Your task to perform on an android device: Open Chrome and go to settings Image 0: 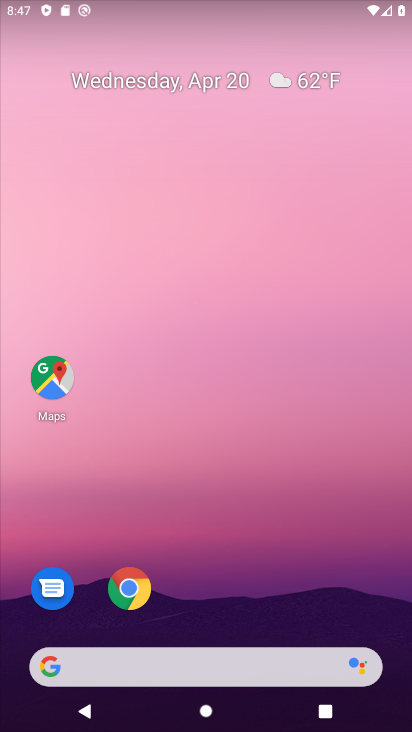
Step 0: drag from (217, 623) to (200, 2)
Your task to perform on an android device: Open Chrome and go to settings Image 1: 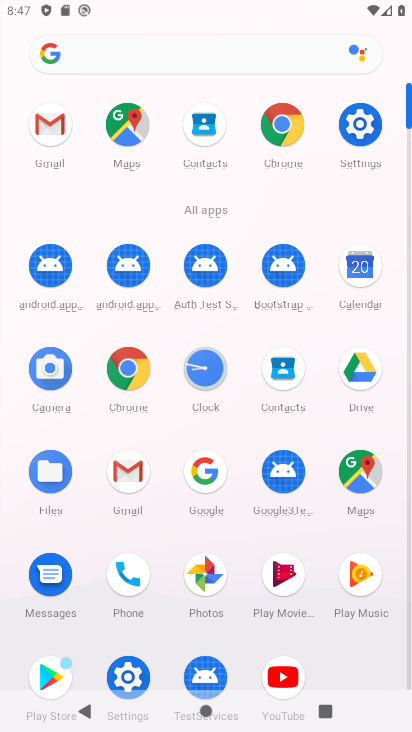
Step 1: click (360, 121)
Your task to perform on an android device: Open Chrome and go to settings Image 2: 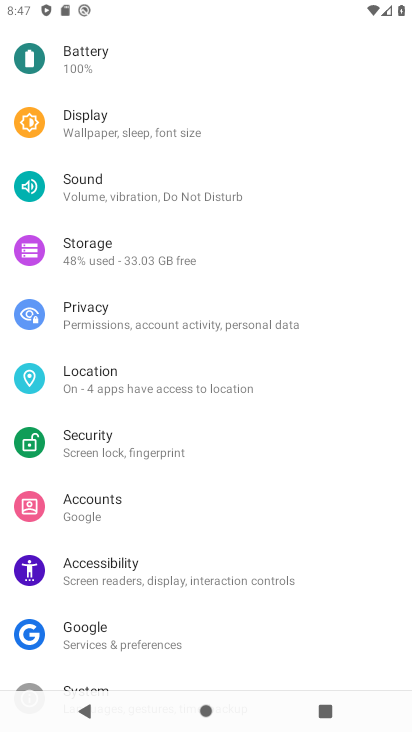
Step 2: press home button
Your task to perform on an android device: Open Chrome and go to settings Image 3: 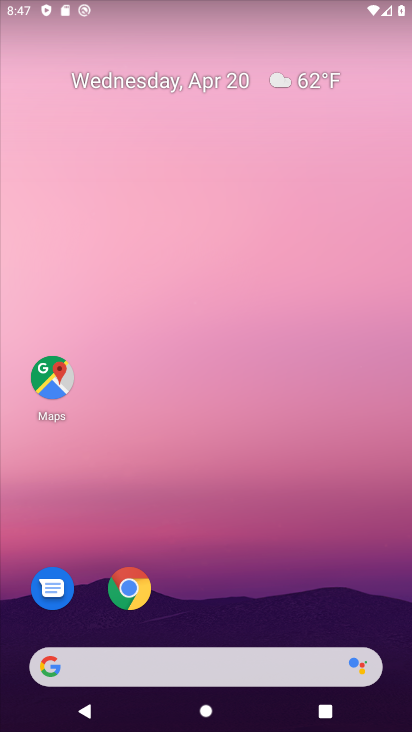
Step 3: drag from (233, 622) to (166, 30)
Your task to perform on an android device: Open Chrome and go to settings Image 4: 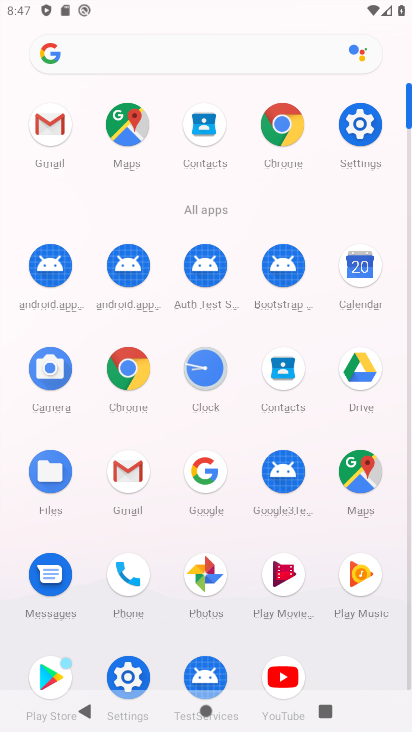
Step 4: click (123, 360)
Your task to perform on an android device: Open Chrome and go to settings Image 5: 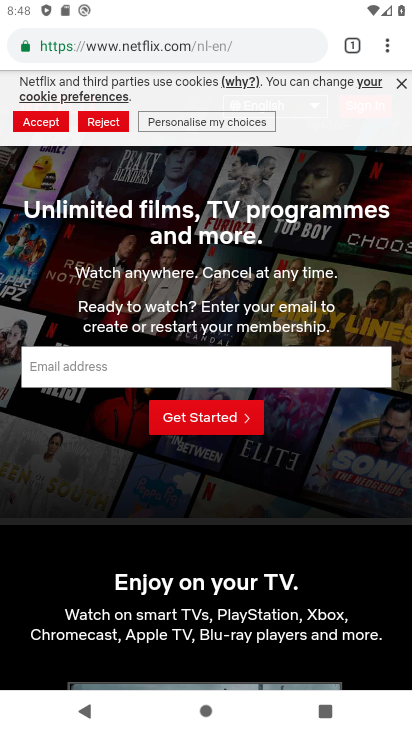
Step 5: click (383, 46)
Your task to perform on an android device: Open Chrome and go to settings Image 6: 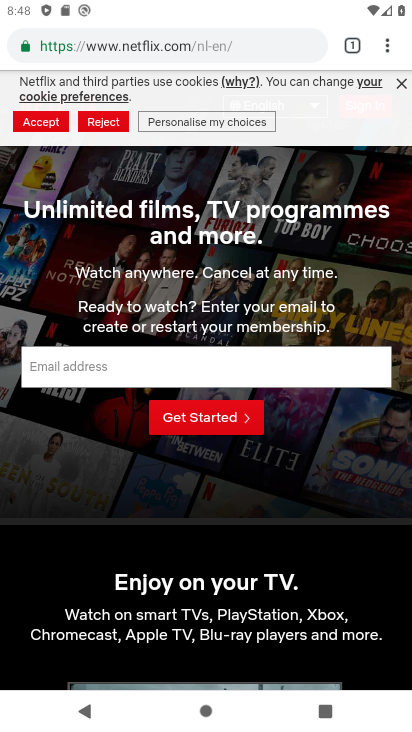
Step 6: click (388, 46)
Your task to perform on an android device: Open Chrome and go to settings Image 7: 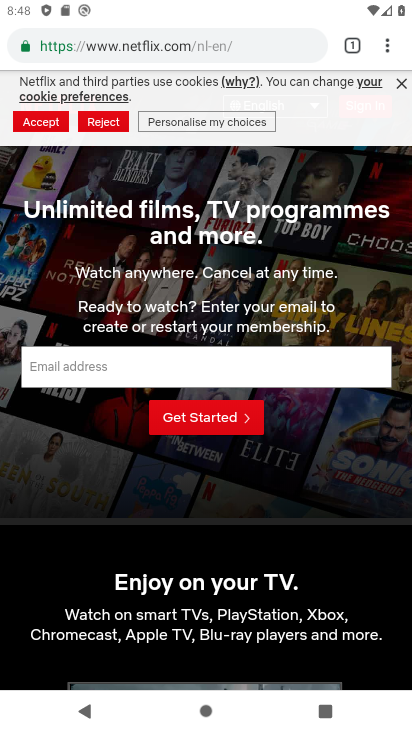
Step 7: click (385, 40)
Your task to perform on an android device: Open Chrome and go to settings Image 8: 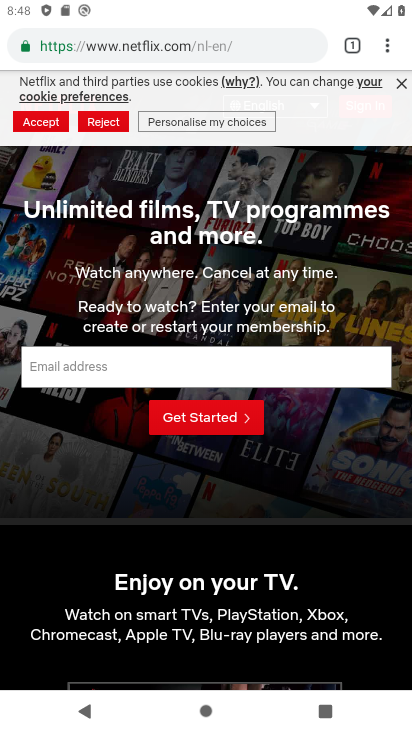
Step 8: click (388, 44)
Your task to perform on an android device: Open Chrome and go to settings Image 9: 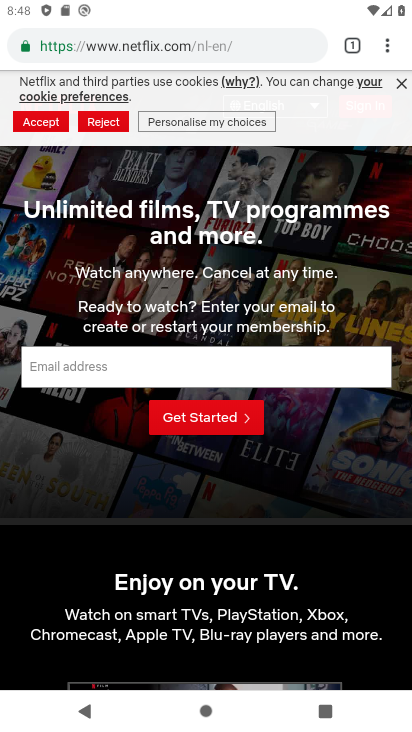
Step 9: click (383, 44)
Your task to perform on an android device: Open Chrome and go to settings Image 10: 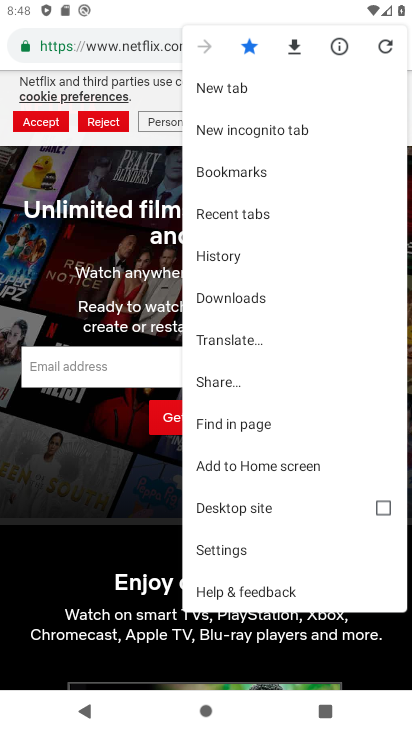
Step 10: click (254, 547)
Your task to perform on an android device: Open Chrome and go to settings Image 11: 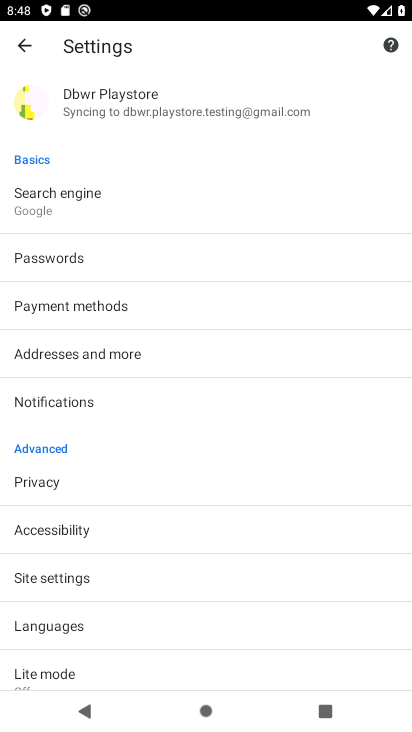
Step 11: drag from (185, 605) to (201, 210)
Your task to perform on an android device: Open Chrome and go to settings Image 12: 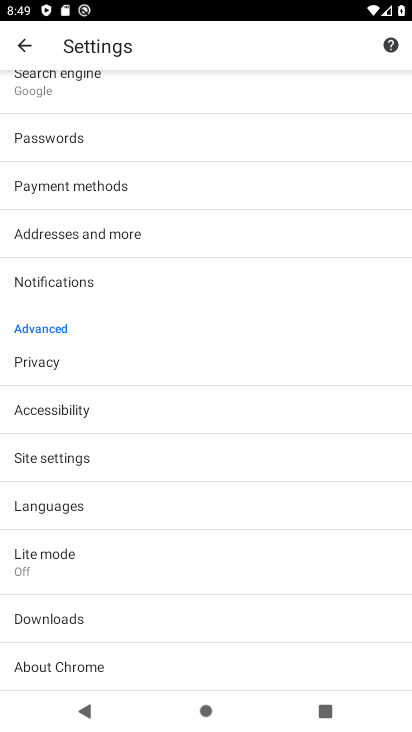
Step 12: click (157, 155)
Your task to perform on an android device: Open Chrome and go to settings Image 13: 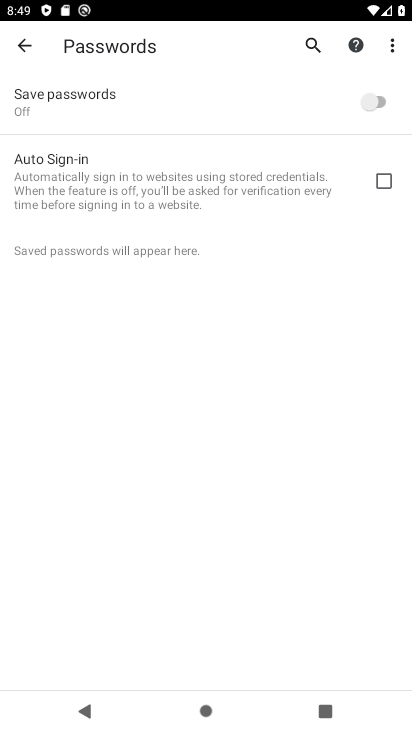
Step 13: task complete